Your task to perform on an android device: turn off smart reply in the gmail app Image 0: 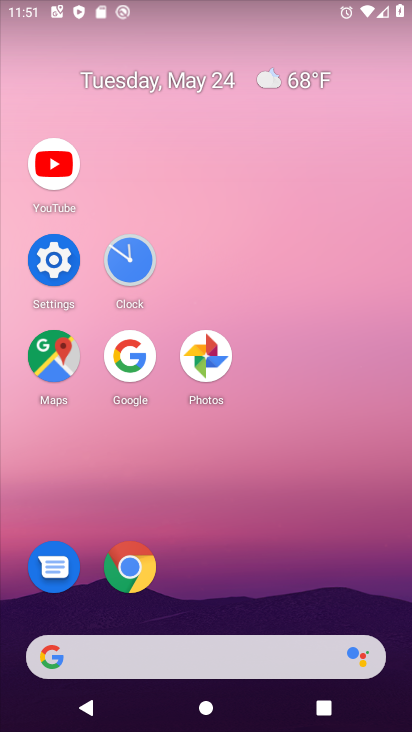
Step 0: drag from (212, 605) to (341, 176)
Your task to perform on an android device: turn off smart reply in the gmail app Image 1: 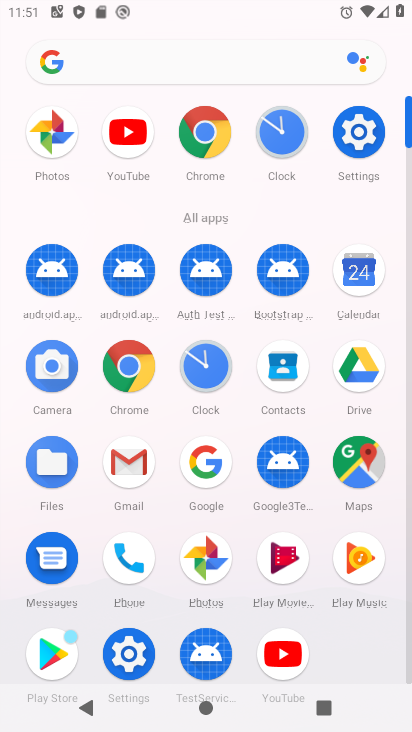
Step 1: drag from (123, 463) to (109, 194)
Your task to perform on an android device: turn off smart reply in the gmail app Image 2: 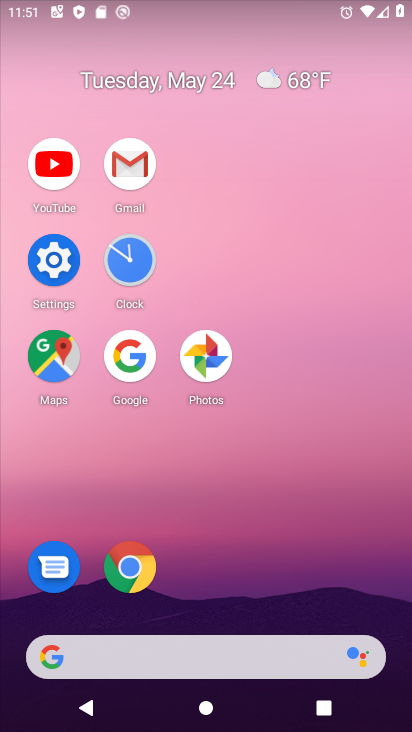
Step 2: click (145, 164)
Your task to perform on an android device: turn off smart reply in the gmail app Image 3: 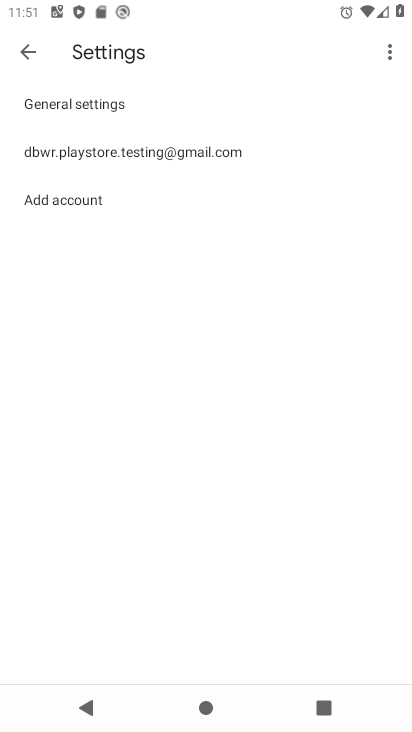
Step 3: click (241, 136)
Your task to perform on an android device: turn off smart reply in the gmail app Image 4: 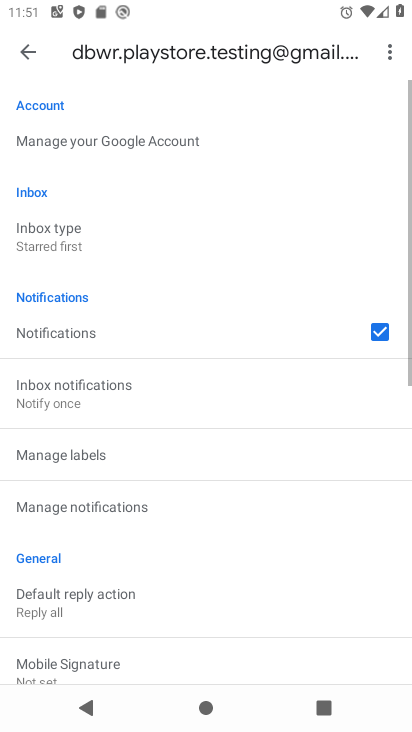
Step 4: drag from (159, 594) to (209, 141)
Your task to perform on an android device: turn off smart reply in the gmail app Image 5: 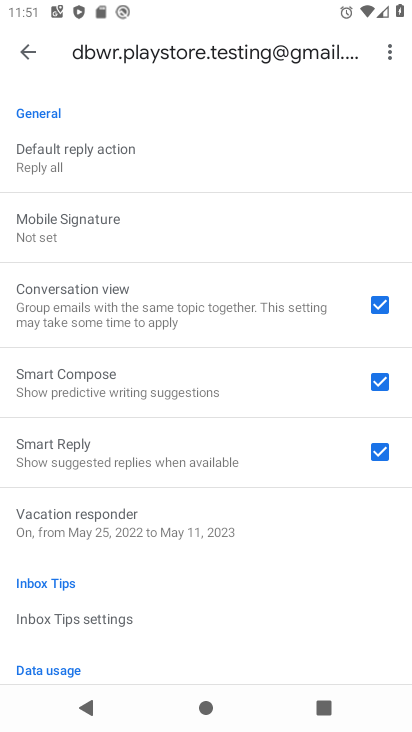
Step 5: click (372, 454)
Your task to perform on an android device: turn off smart reply in the gmail app Image 6: 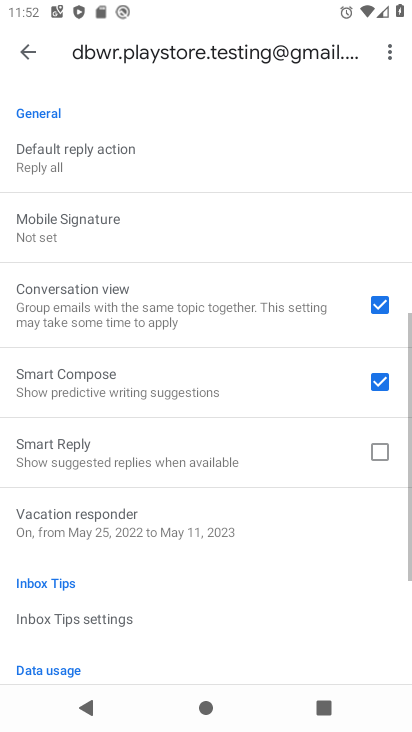
Step 6: task complete